Your task to perform on an android device: turn on location history Image 0: 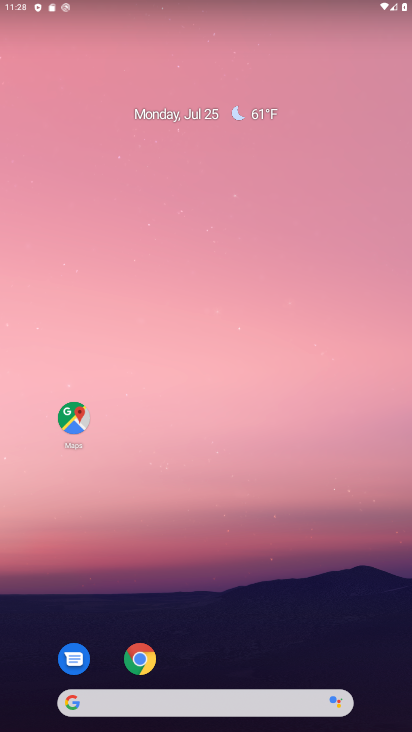
Step 0: drag from (209, 704) to (211, 180)
Your task to perform on an android device: turn on location history Image 1: 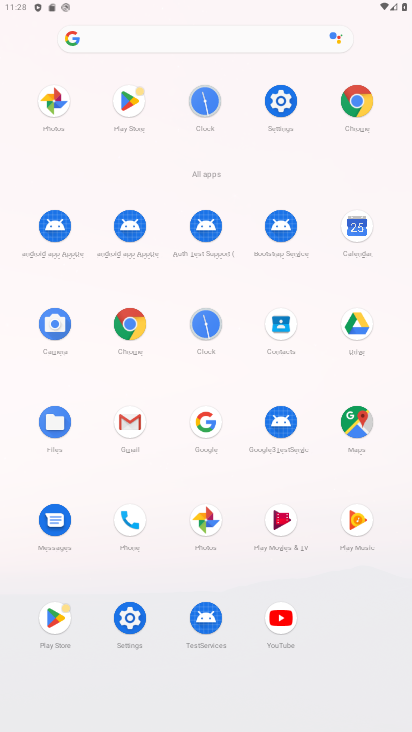
Step 1: click (284, 109)
Your task to perform on an android device: turn on location history Image 2: 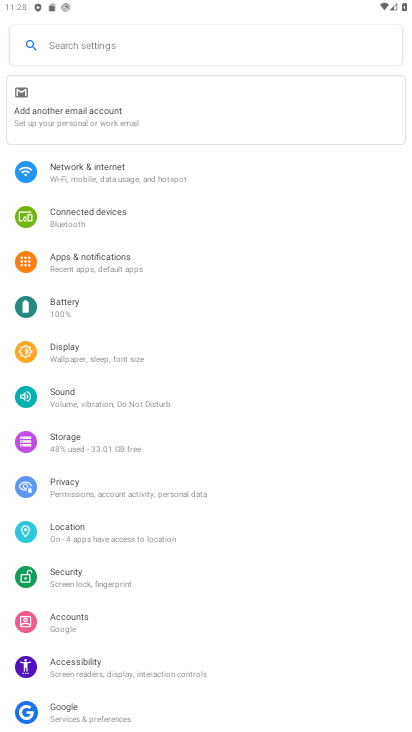
Step 2: click (63, 520)
Your task to perform on an android device: turn on location history Image 3: 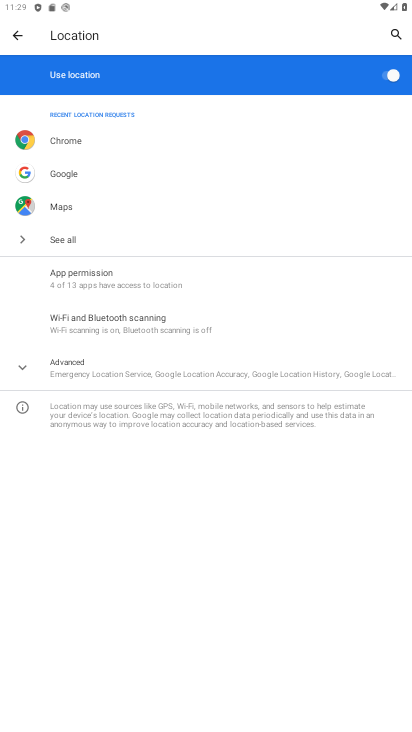
Step 3: click (109, 369)
Your task to perform on an android device: turn on location history Image 4: 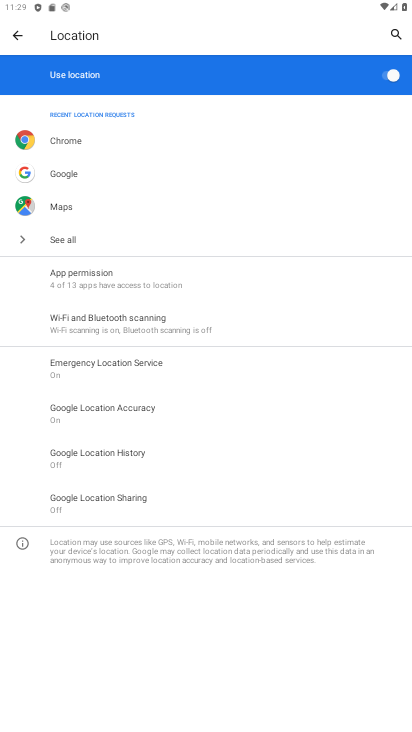
Step 4: click (118, 453)
Your task to perform on an android device: turn on location history Image 5: 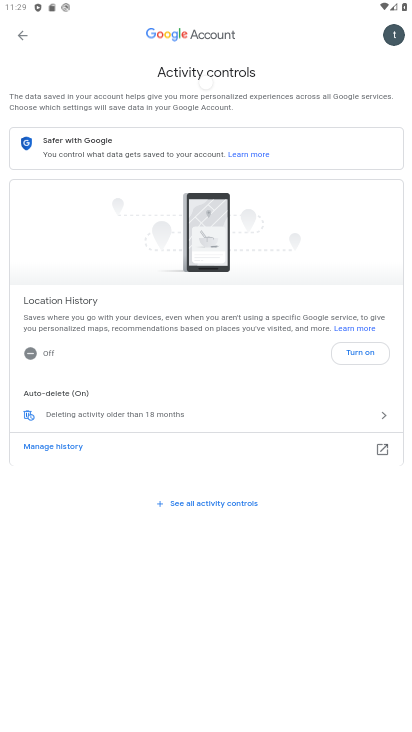
Step 5: click (361, 349)
Your task to perform on an android device: turn on location history Image 6: 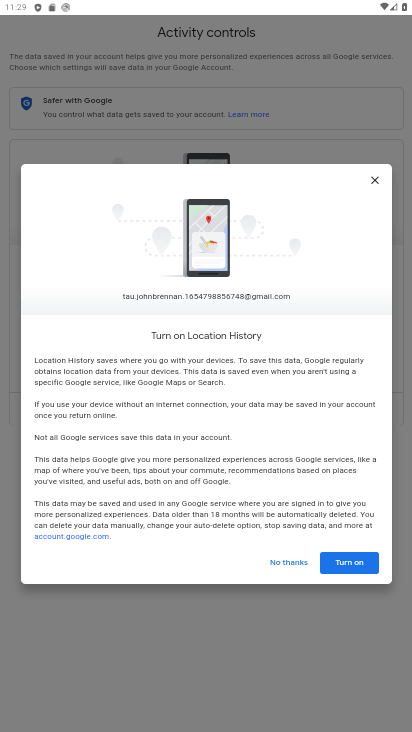
Step 6: click (352, 562)
Your task to perform on an android device: turn on location history Image 7: 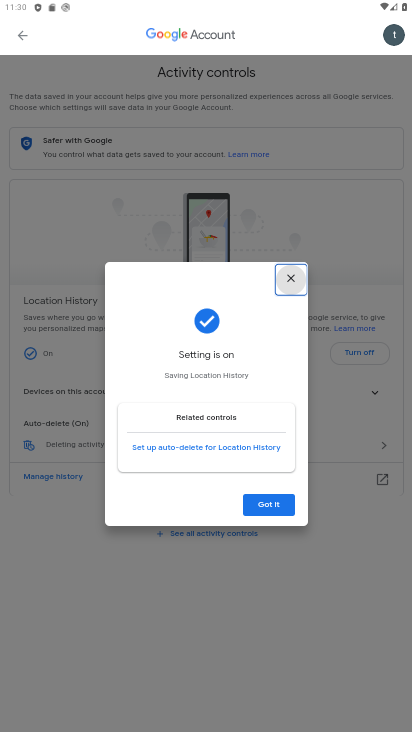
Step 7: click (266, 500)
Your task to perform on an android device: turn on location history Image 8: 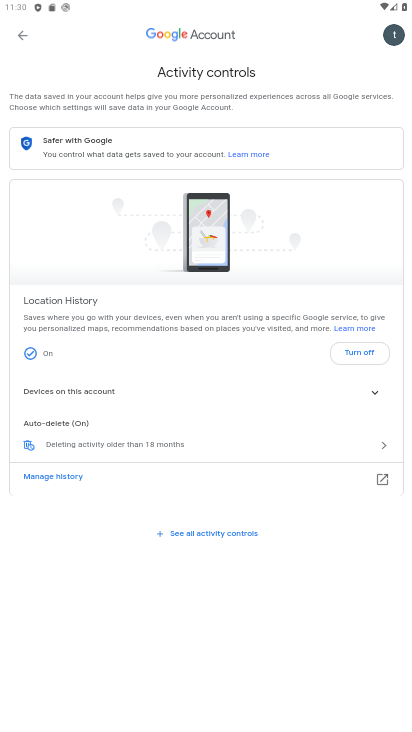
Step 8: task complete